Your task to perform on an android device: check data usage Image 0: 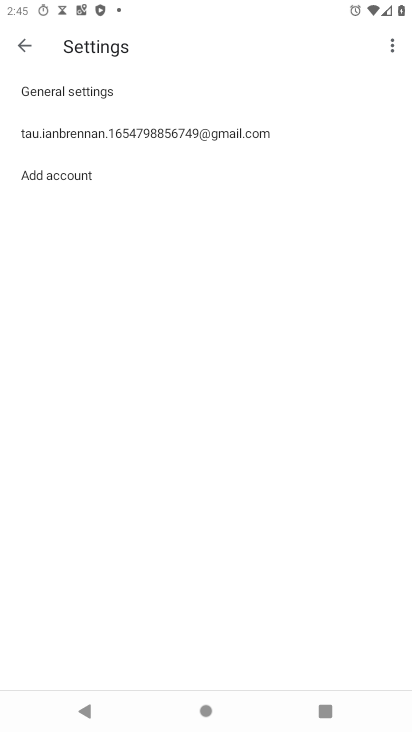
Step 0: press home button
Your task to perform on an android device: check data usage Image 1: 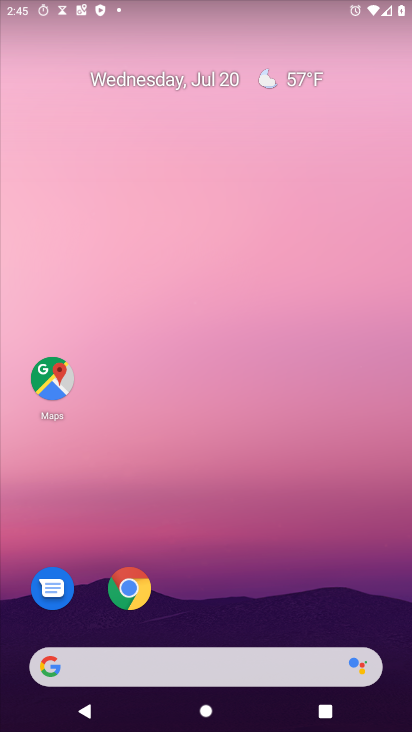
Step 1: drag from (164, 602) to (180, 0)
Your task to perform on an android device: check data usage Image 2: 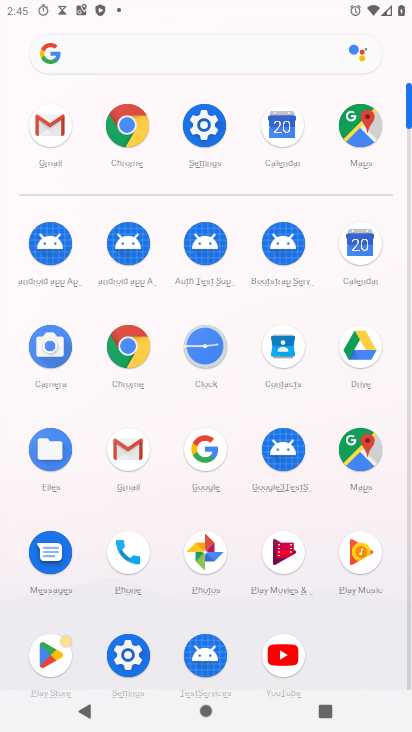
Step 2: click (205, 146)
Your task to perform on an android device: check data usage Image 3: 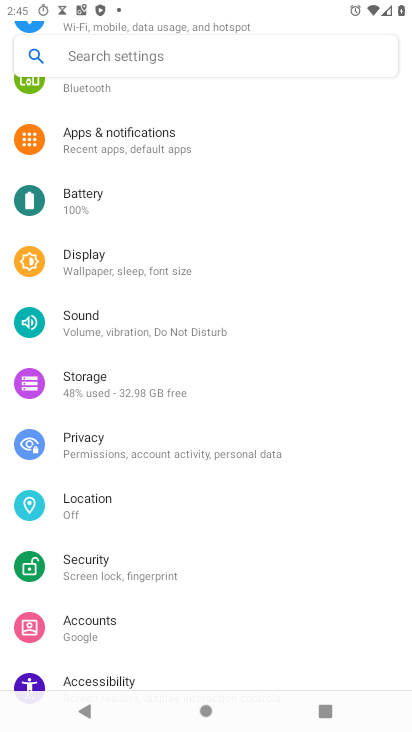
Step 3: drag from (218, 260) to (201, 675)
Your task to perform on an android device: check data usage Image 4: 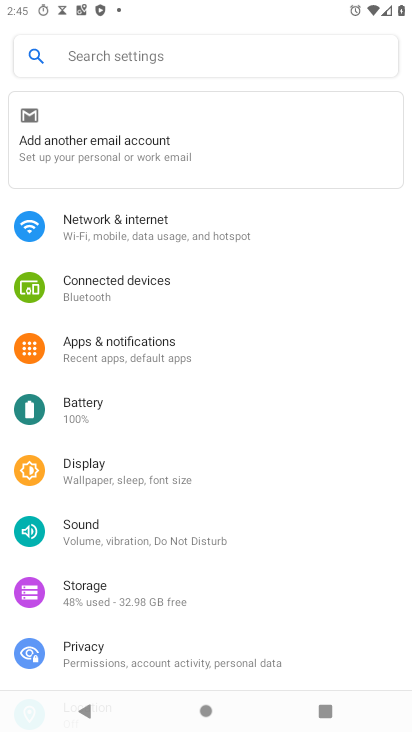
Step 4: click (183, 238)
Your task to perform on an android device: check data usage Image 5: 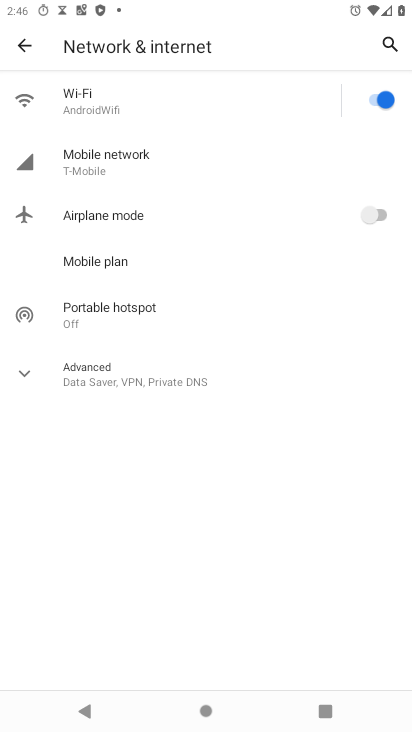
Step 5: click (112, 167)
Your task to perform on an android device: check data usage Image 6: 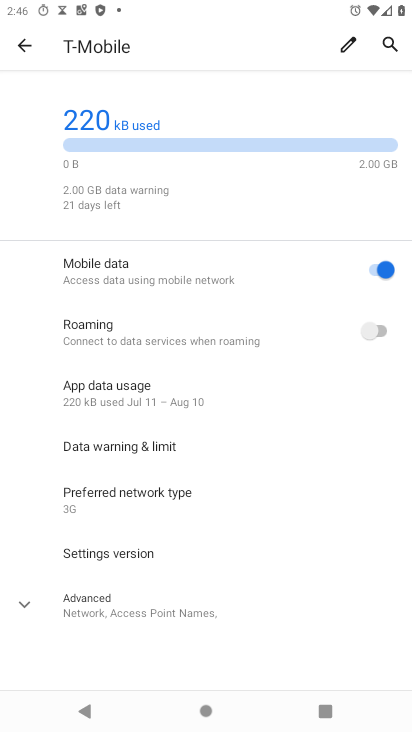
Step 6: task complete